Your task to perform on an android device: turn vacation reply on in the gmail app Image 0: 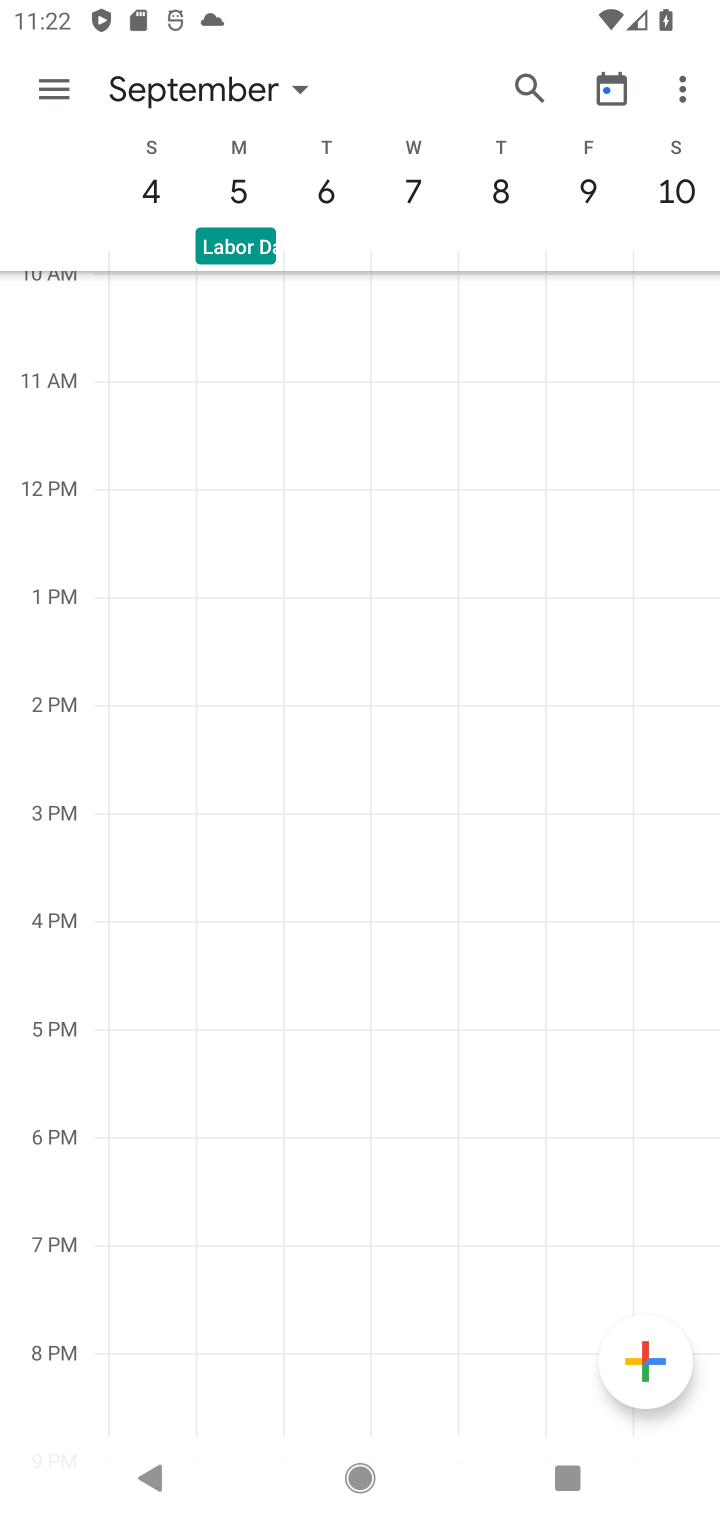
Step 0: press home button
Your task to perform on an android device: turn vacation reply on in the gmail app Image 1: 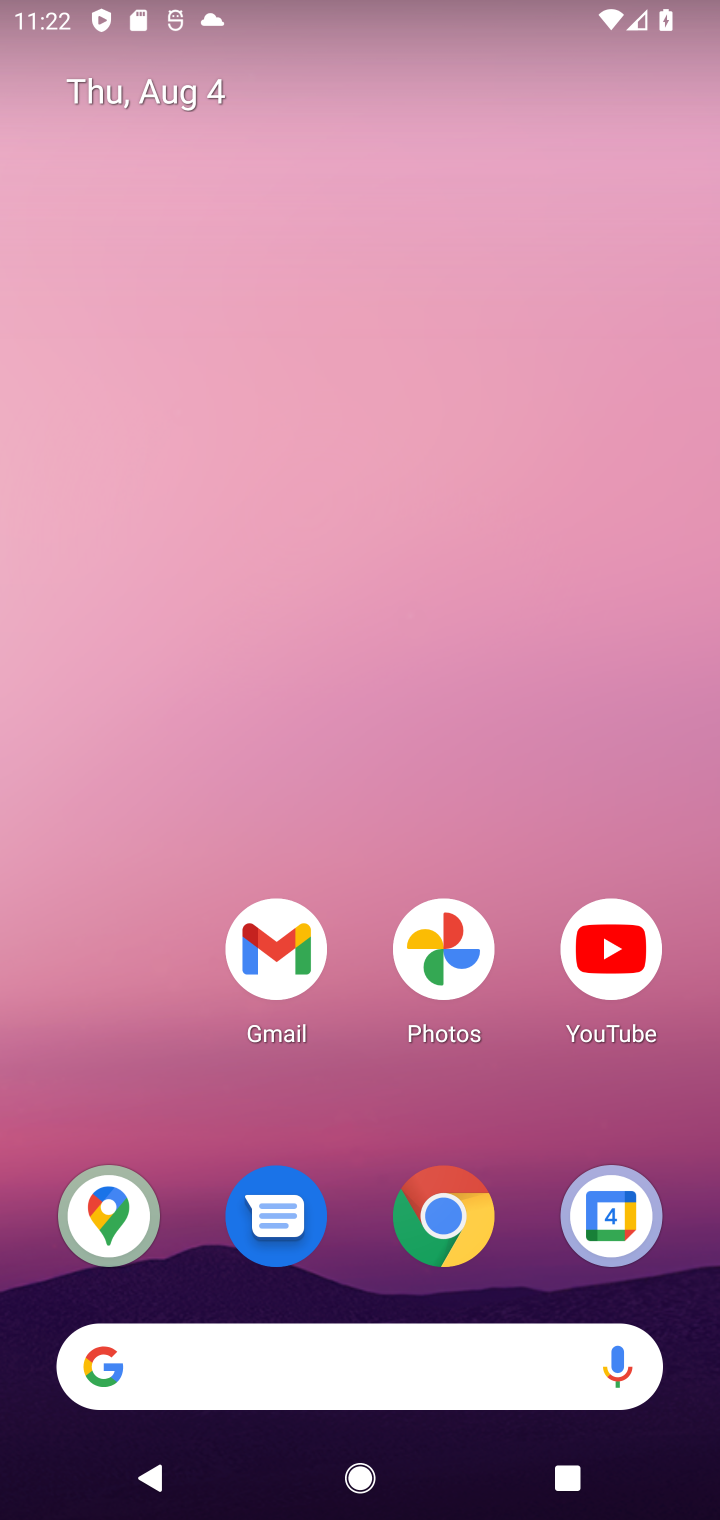
Step 1: drag from (305, 1379) to (443, 147)
Your task to perform on an android device: turn vacation reply on in the gmail app Image 2: 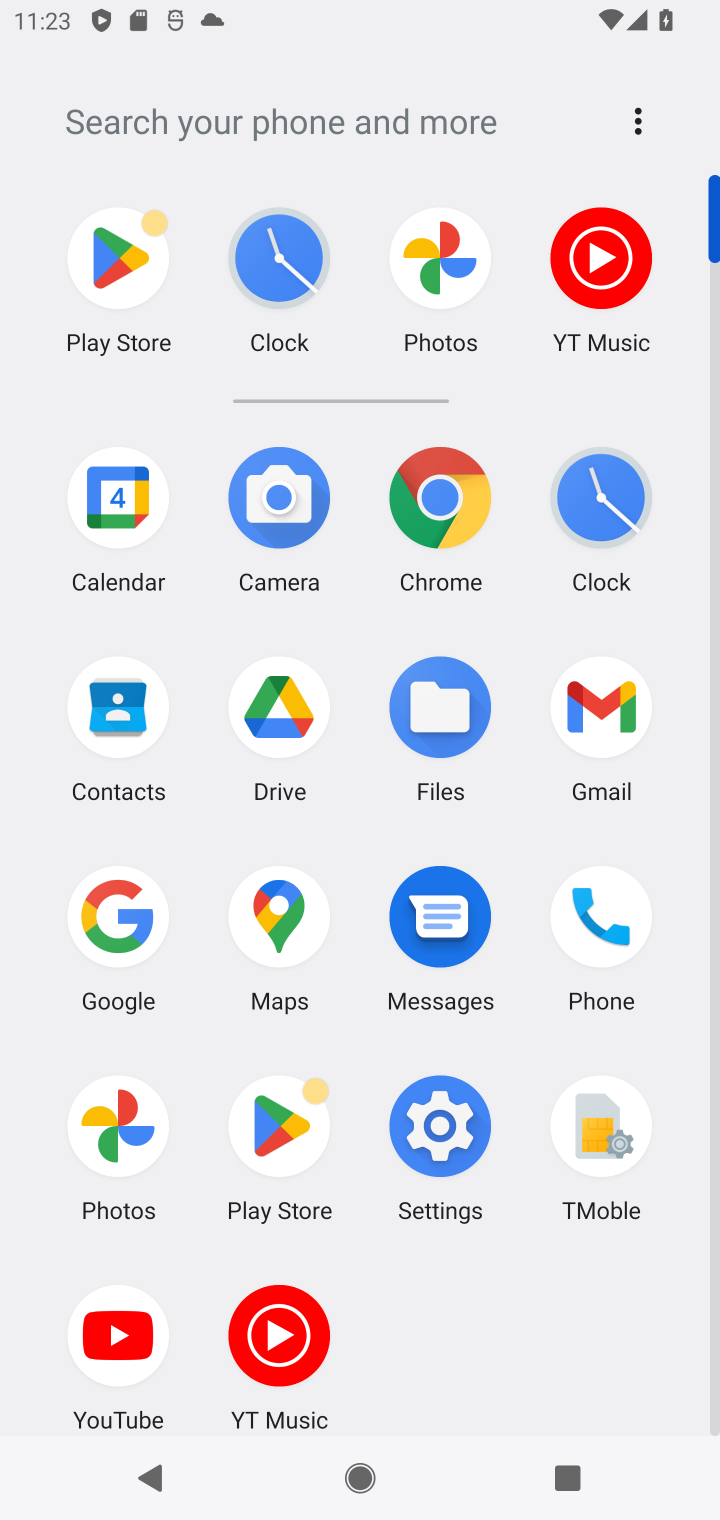
Step 2: click (603, 707)
Your task to perform on an android device: turn vacation reply on in the gmail app Image 3: 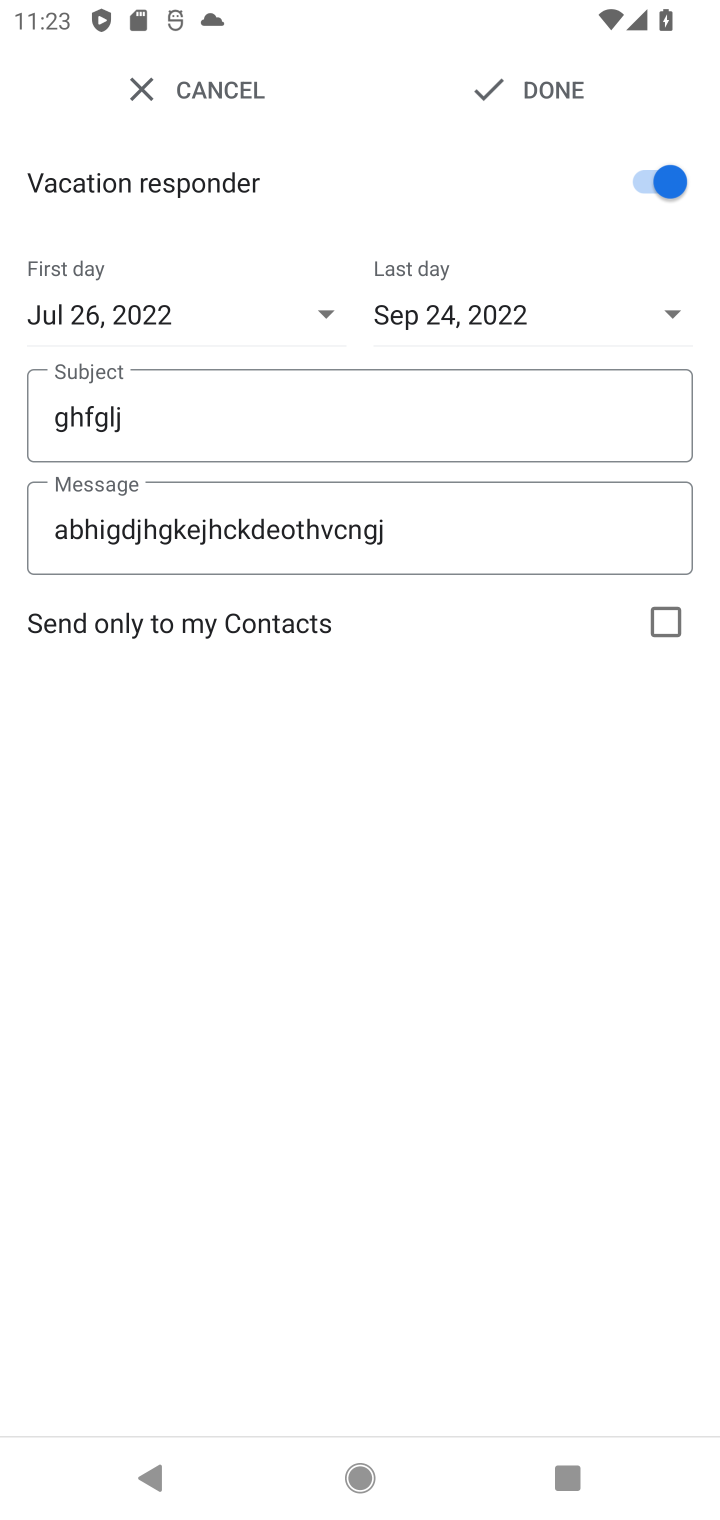
Step 3: task complete